Your task to perform on an android device: Open location settings Image 0: 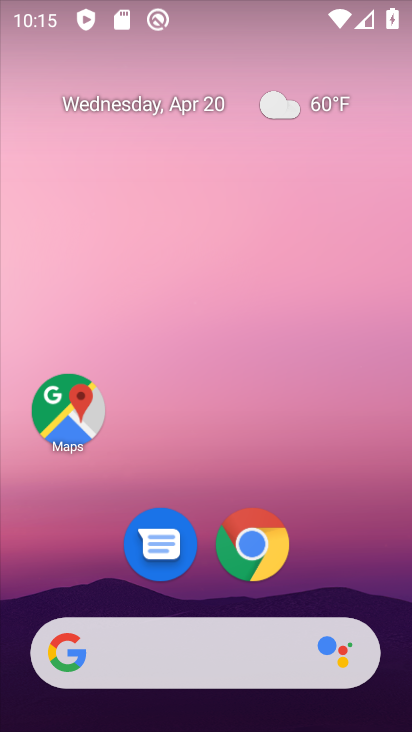
Step 0: drag from (345, 534) to (280, 209)
Your task to perform on an android device: Open location settings Image 1: 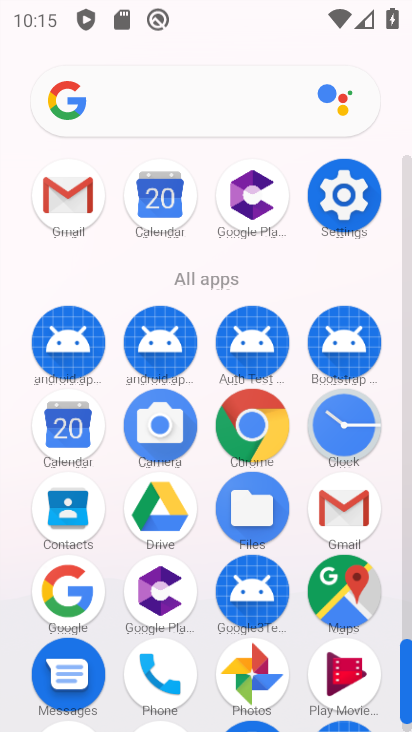
Step 1: click (346, 187)
Your task to perform on an android device: Open location settings Image 2: 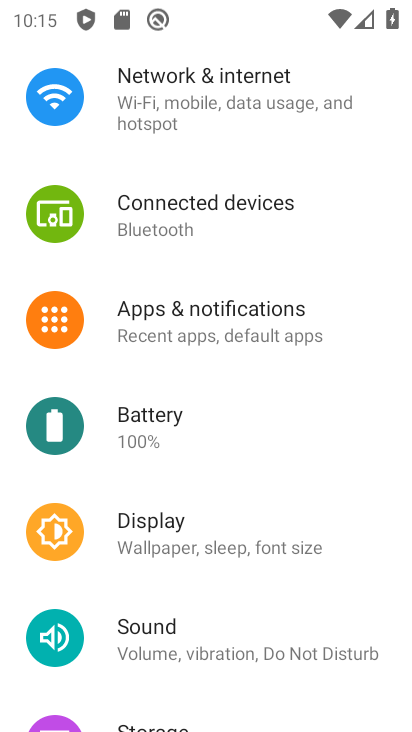
Step 2: drag from (237, 633) to (232, 393)
Your task to perform on an android device: Open location settings Image 3: 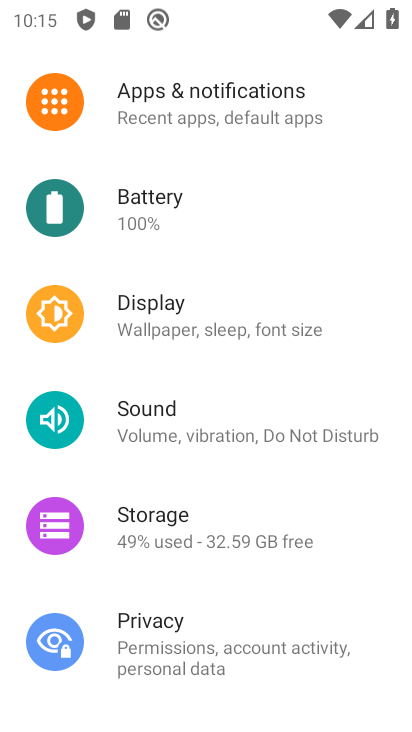
Step 3: drag from (244, 566) to (229, 228)
Your task to perform on an android device: Open location settings Image 4: 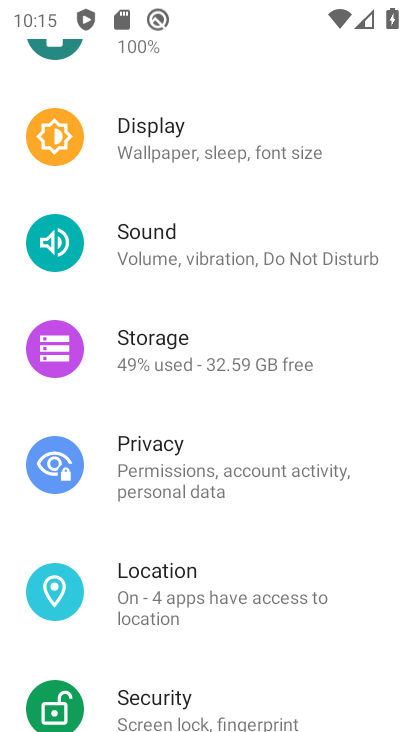
Step 4: click (223, 573)
Your task to perform on an android device: Open location settings Image 5: 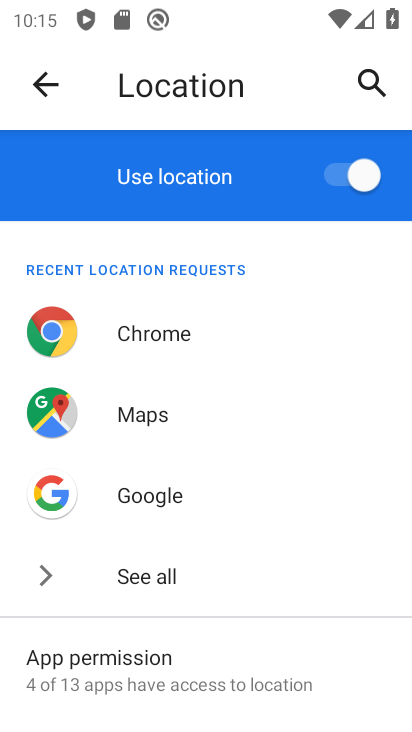
Step 5: task complete